Your task to perform on an android device: turn on translation in the chrome app Image 0: 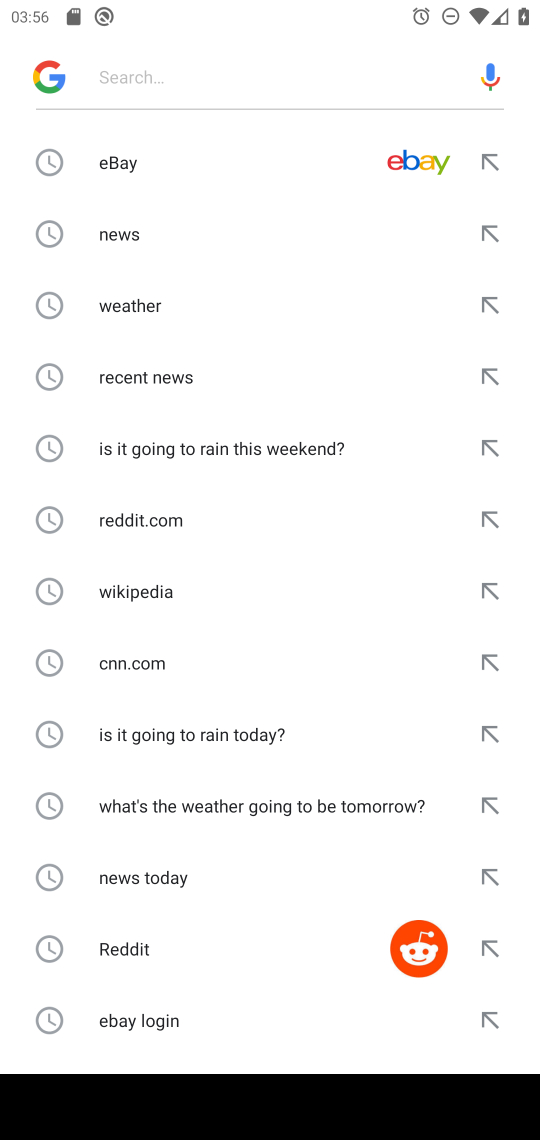
Step 0: press home button
Your task to perform on an android device: turn on translation in the chrome app Image 1: 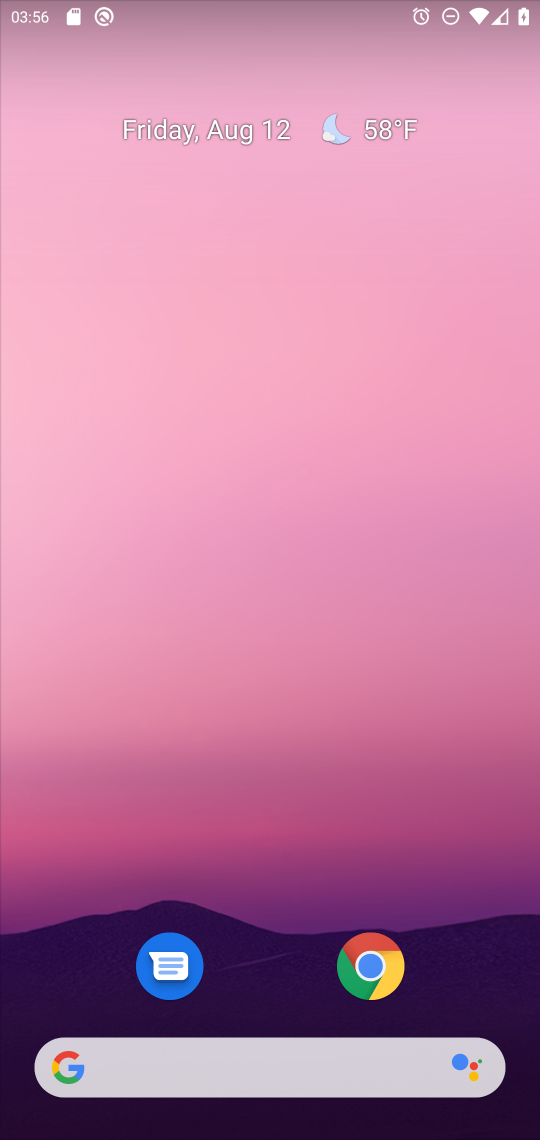
Step 1: drag from (233, 870) to (266, 219)
Your task to perform on an android device: turn on translation in the chrome app Image 2: 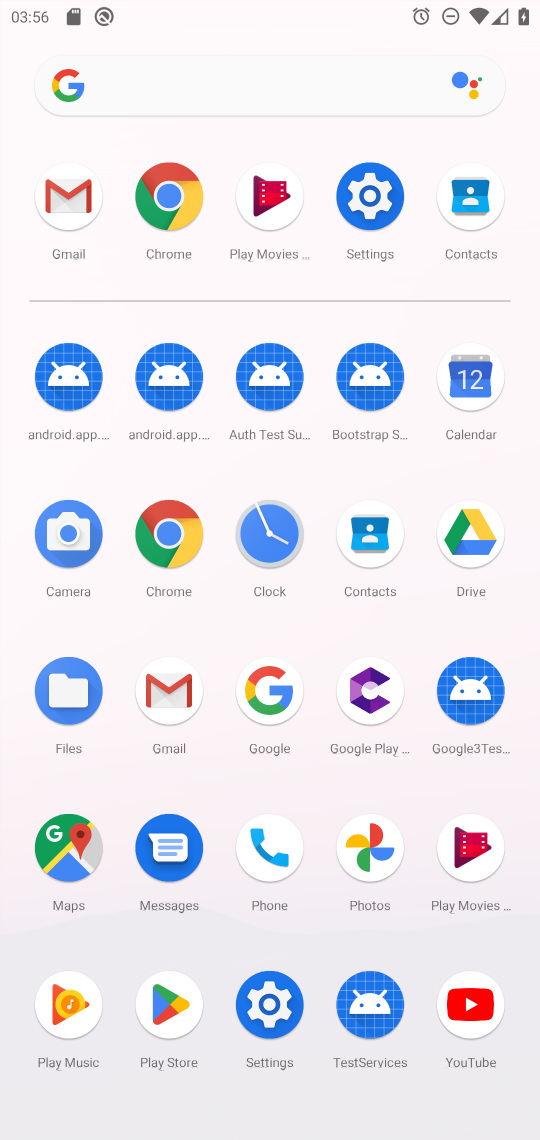
Step 2: click (172, 535)
Your task to perform on an android device: turn on translation in the chrome app Image 3: 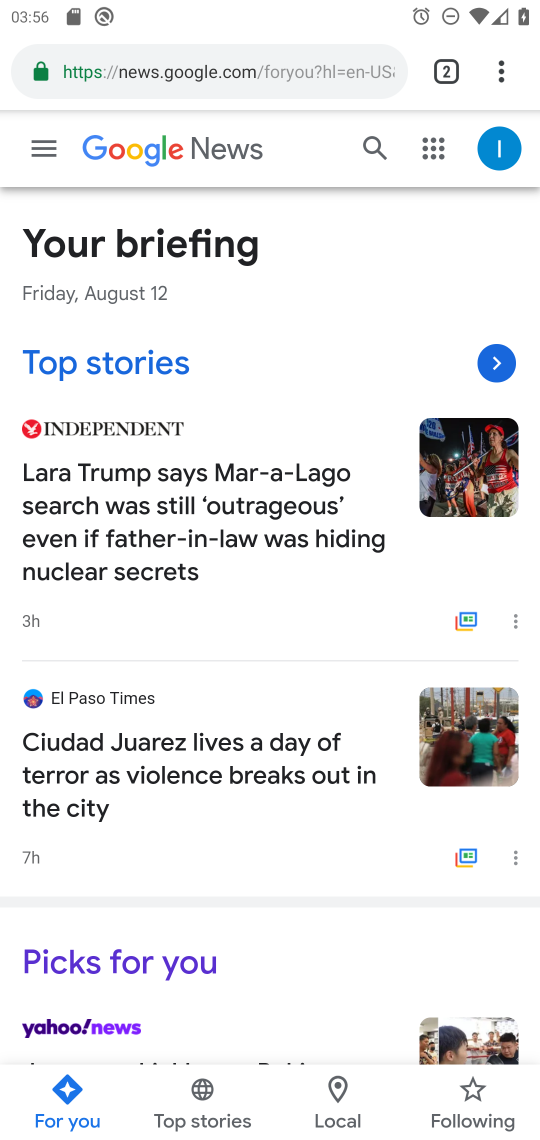
Step 3: drag from (500, 57) to (253, 857)
Your task to perform on an android device: turn on translation in the chrome app Image 4: 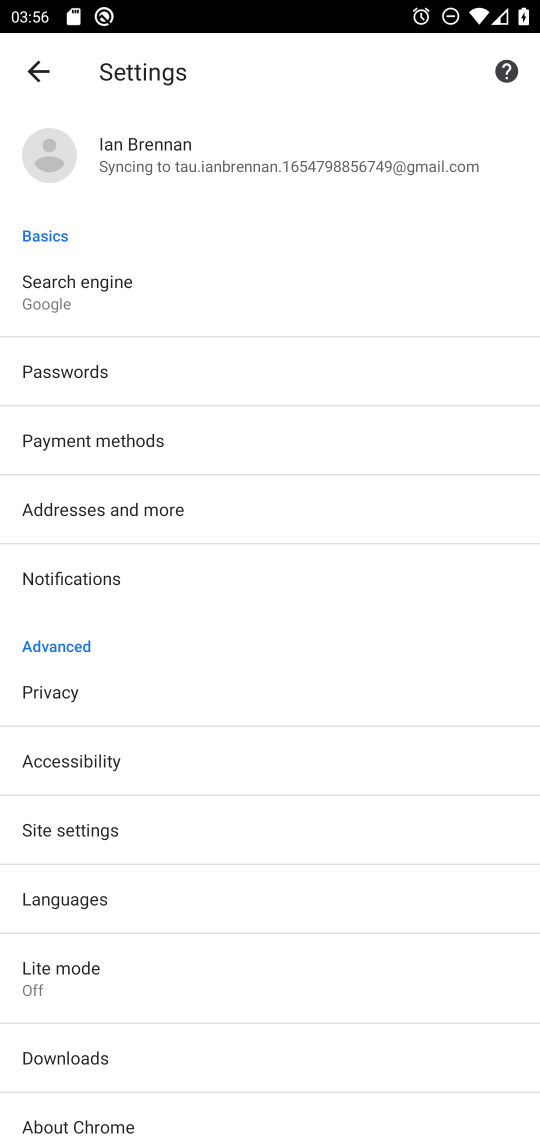
Step 4: drag from (277, 975) to (373, 454)
Your task to perform on an android device: turn on translation in the chrome app Image 5: 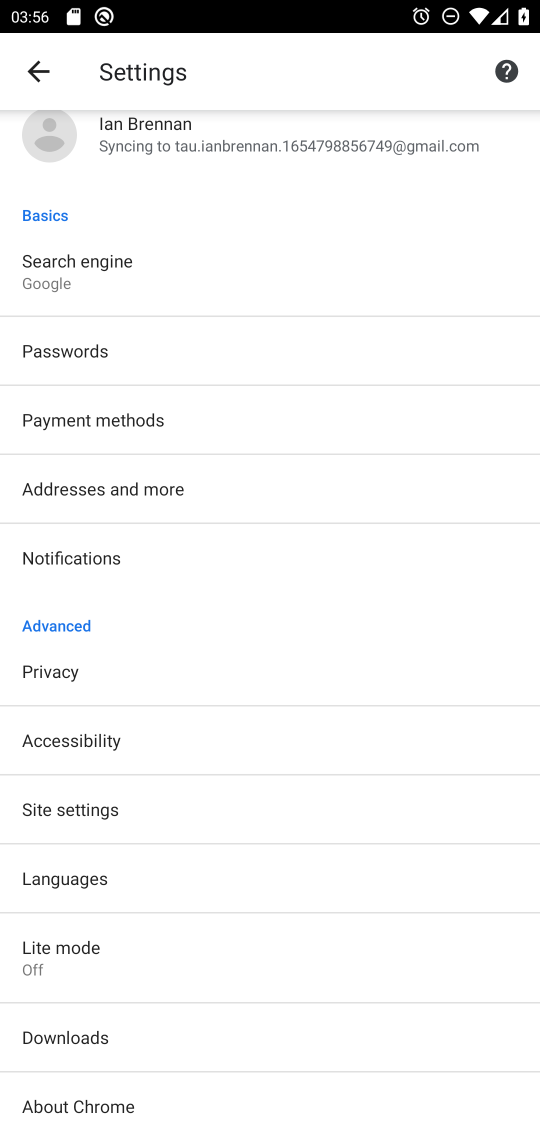
Step 5: click (131, 866)
Your task to perform on an android device: turn on translation in the chrome app Image 6: 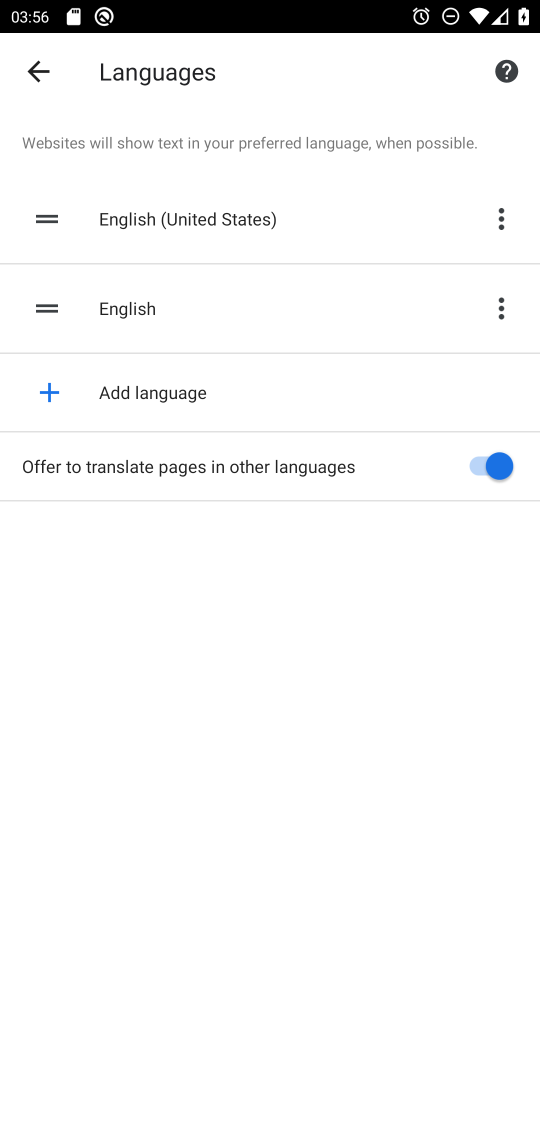
Step 6: task complete